Your task to perform on an android device: toggle improve location accuracy Image 0: 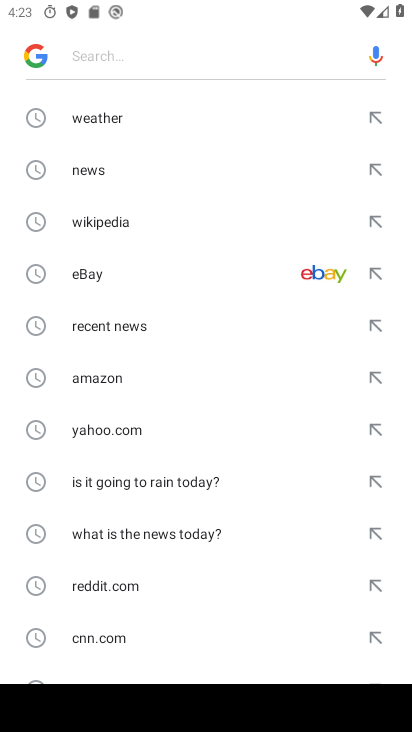
Step 0: press back button
Your task to perform on an android device: toggle improve location accuracy Image 1: 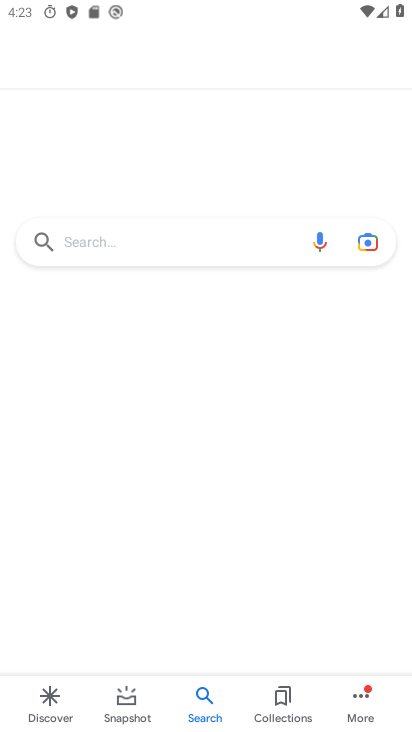
Step 1: press back button
Your task to perform on an android device: toggle improve location accuracy Image 2: 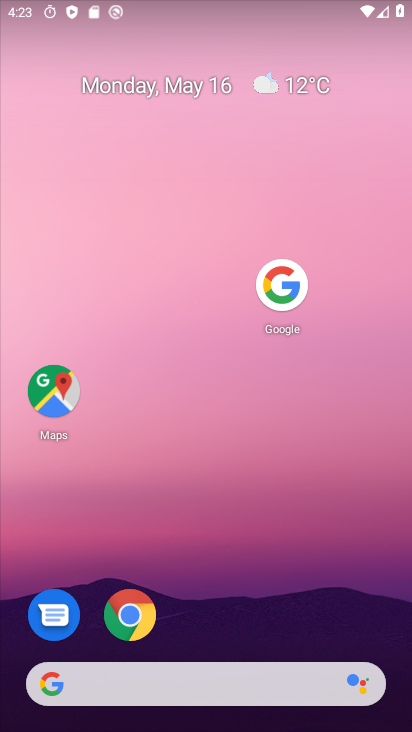
Step 2: drag from (192, 656) to (114, 98)
Your task to perform on an android device: toggle improve location accuracy Image 3: 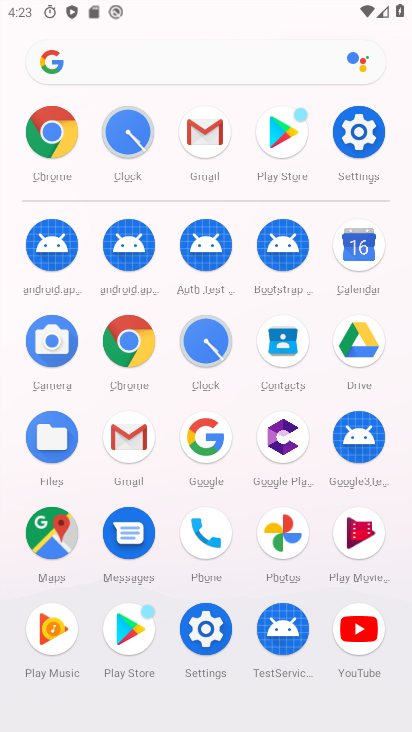
Step 3: click (212, 639)
Your task to perform on an android device: toggle improve location accuracy Image 4: 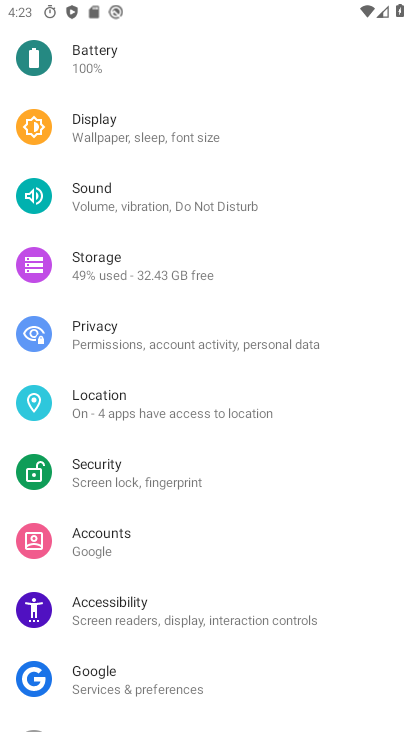
Step 4: click (126, 412)
Your task to perform on an android device: toggle improve location accuracy Image 5: 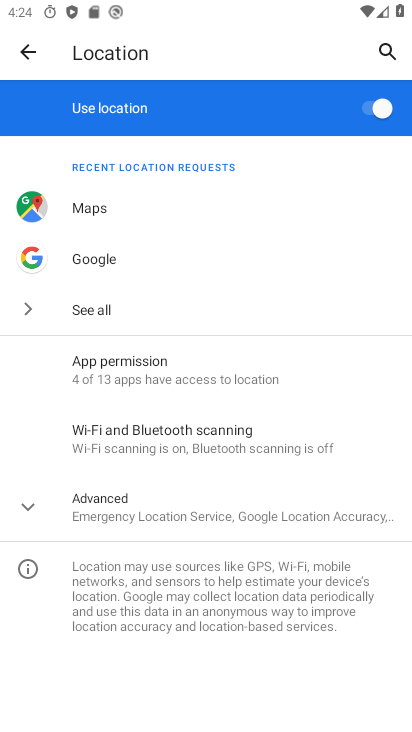
Step 5: click (145, 521)
Your task to perform on an android device: toggle improve location accuracy Image 6: 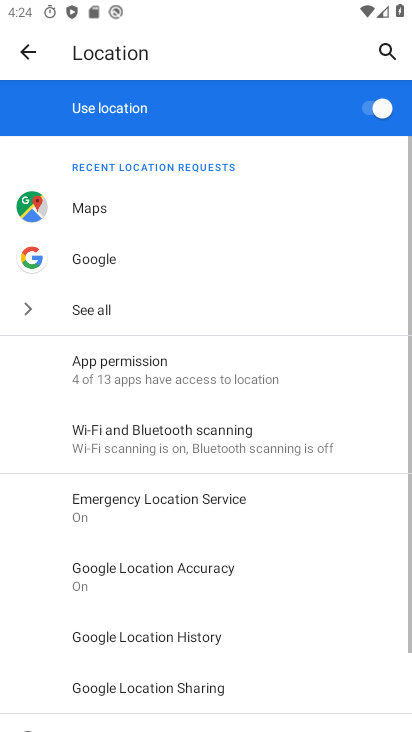
Step 6: drag from (145, 521) to (129, 325)
Your task to perform on an android device: toggle improve location accuracy Image 7: 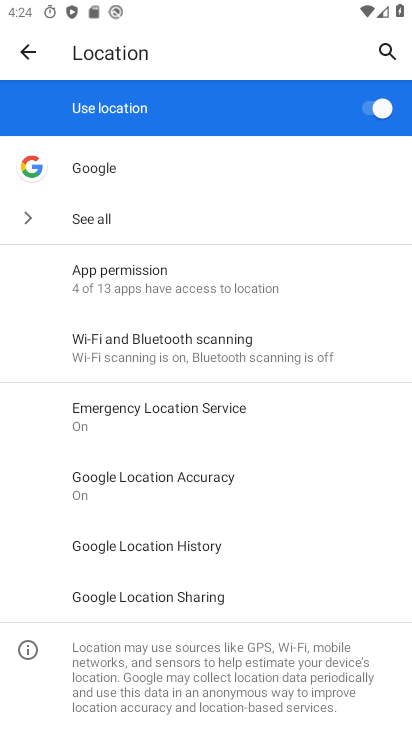
Step 7: click (152, 469)
Your task to perform on an android device: toggle improve location accuracy Image 8: 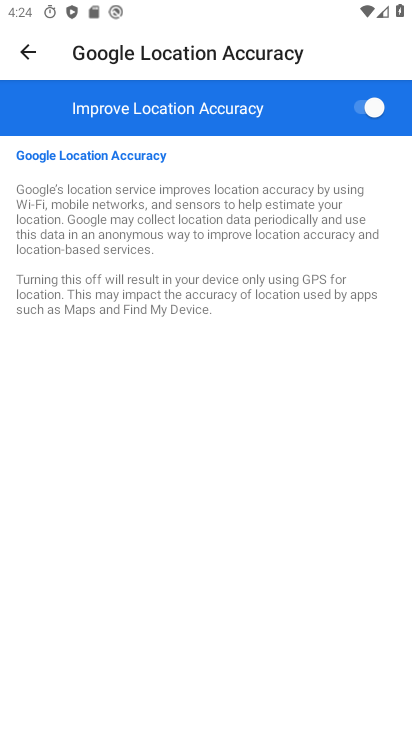
Step 8: click (369, 112)
Your task to perform on an android device: toggle improve location accuracy Image 9: 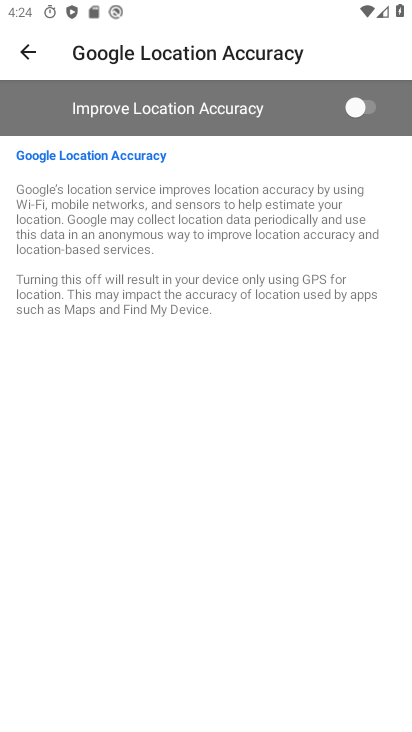
Step 9: task complete